Your task to perform on an android device: Go to Yahoo.com Image 0: 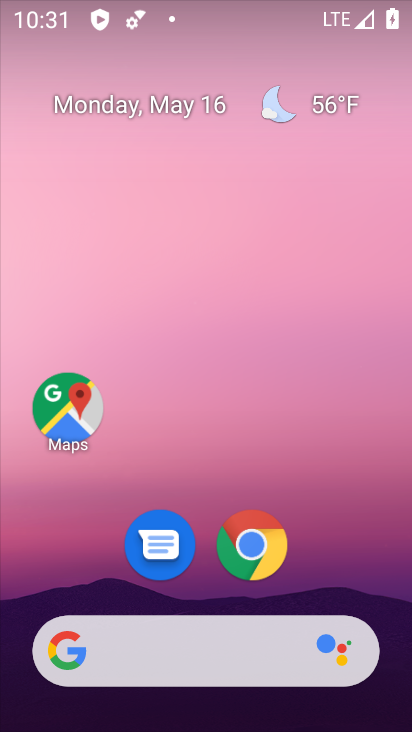
Step 0: click (253, 541)
Your task to perform on an android device: Go to Yahoo.com Image 1: 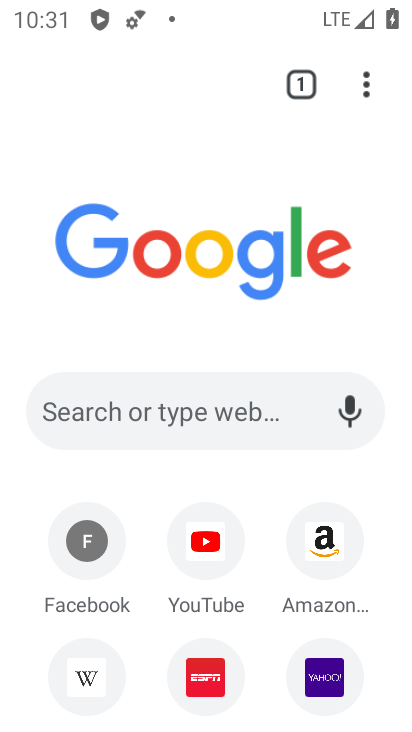
Step 1: click (191, 408)
Your task to perform on an android device: Go to Yahoo.com Image 2: 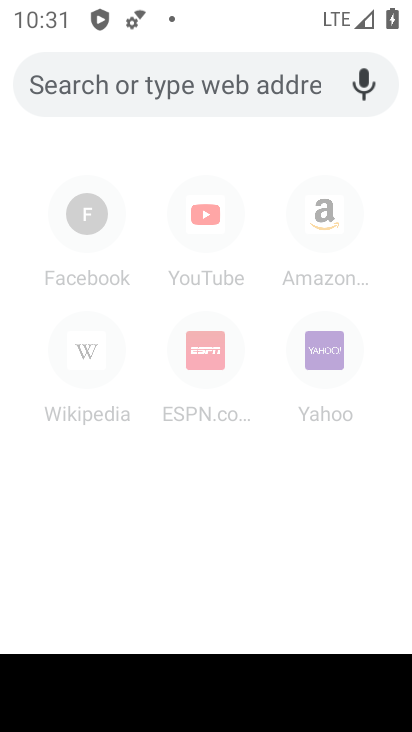
Step 2: type "Yahoo.com"
Your task to perform on an android device: Go to Yahoo.com Image 3: 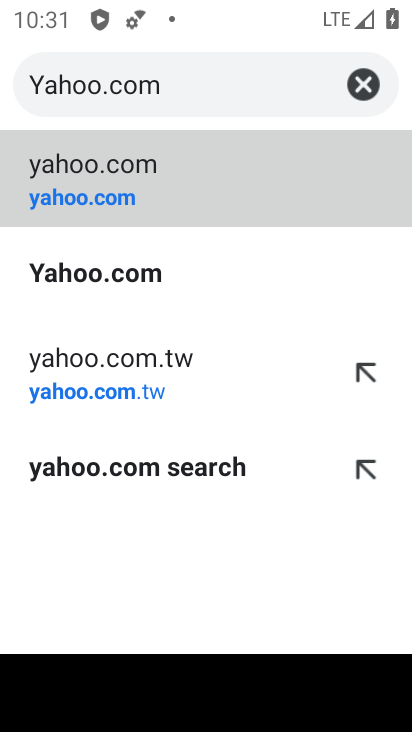
Step 3: click (146, 273)
Your task to perform on an android device: Go to Yahoo.com Image 4: 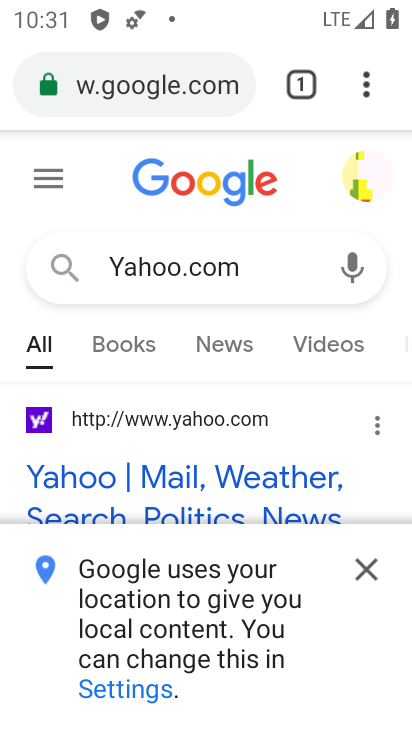
Step 4: click (360, 571)
Your task to perform on an android device: Go to Yahoo.com Image 5: 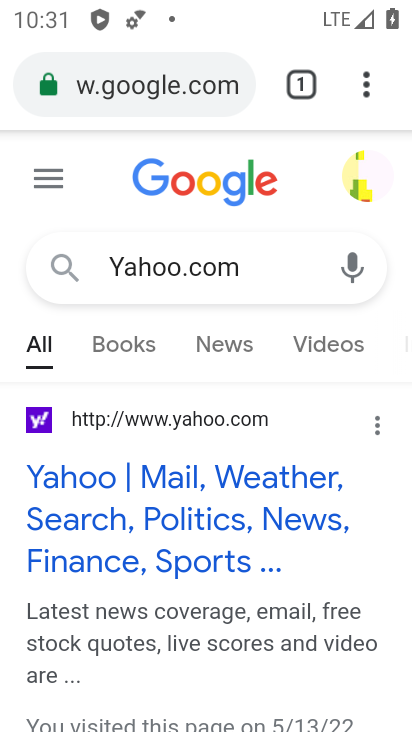
Step 5: click (281, 542)
Your task to perform on an android device: Go to Yahoo.com Image 6: 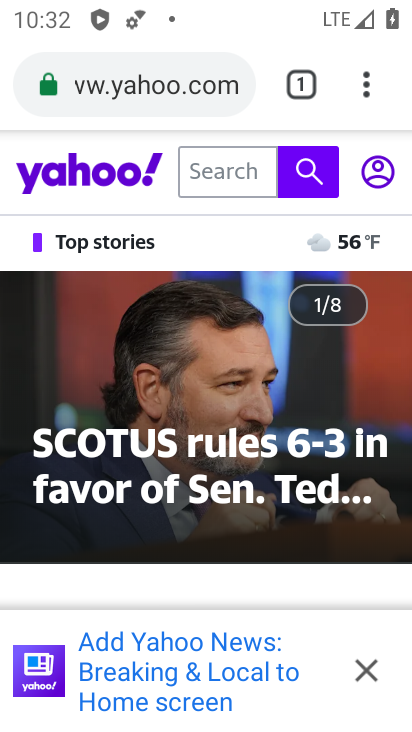
Step 6: task complete